Your task to perform on an android device: turn off javascript in the chrome app Image 0: 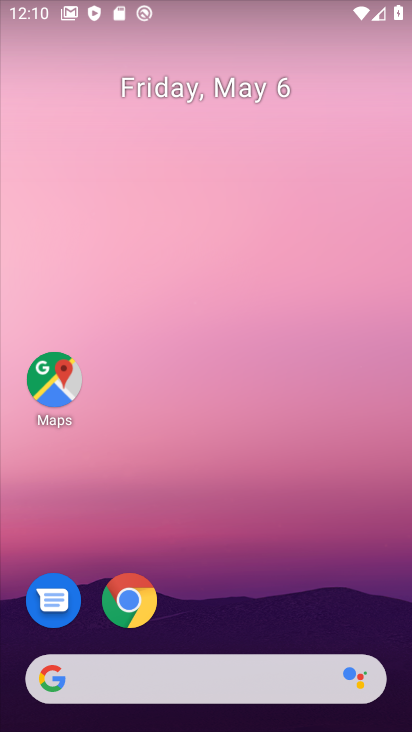
Step 0: click (137, 609)
Your task to perform on an android device: turn off javascript in the chrome app Image 1: 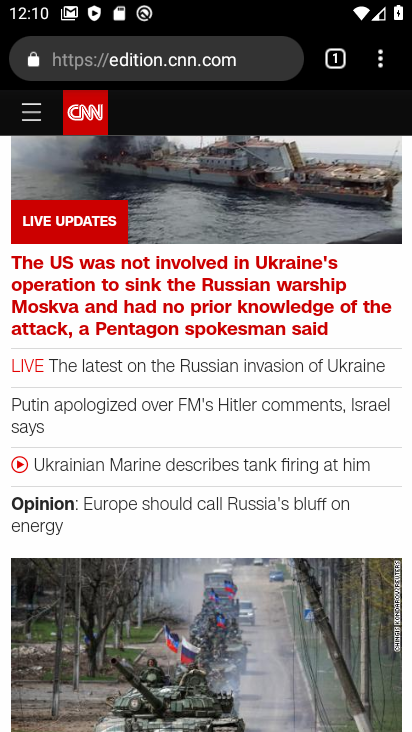
Step 1: drag from (387, 78) to (256, 644)
Your task to perform on an android device: turn off javascript in the chrome app Image 2: 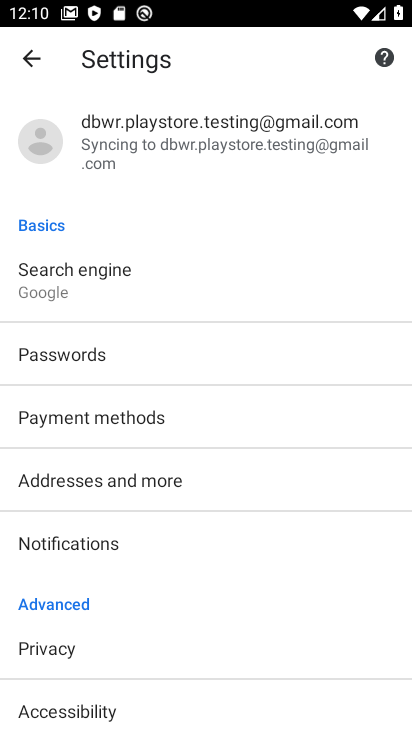
Step 2: drag from (93, 662) to (207, 336)
Your task to perform on an android device: turn off javascript in the chrome app Image 3: 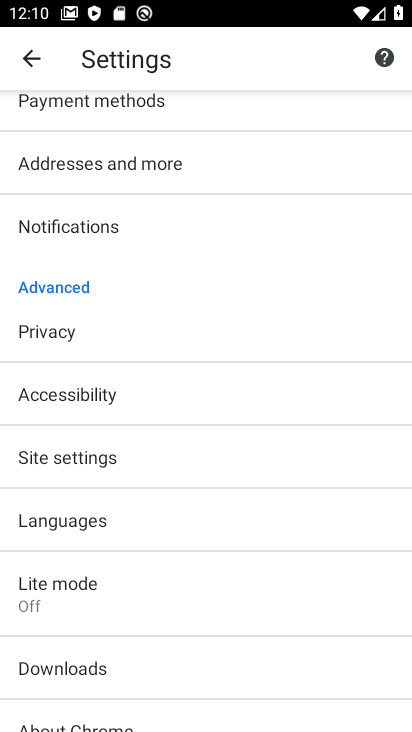
Step 3: drag from (138, 642) to (200, 469)
Your task to perform on an android device: turn off javascript in the chrome app Image 4: 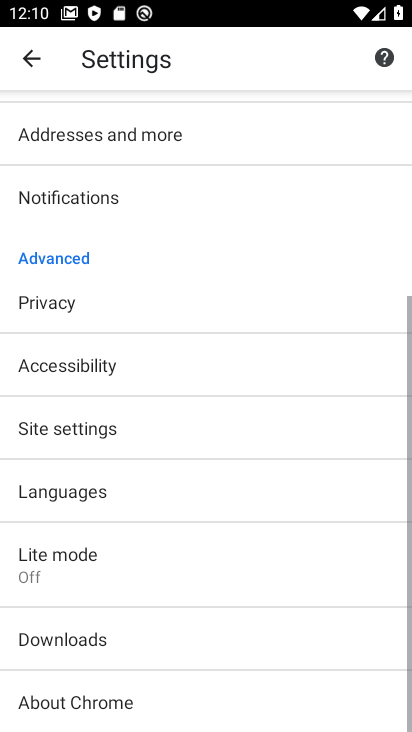
Step 4: click (170, 417)
Your task to perform on an android device: turn off javascript in the chrome app Image 5: 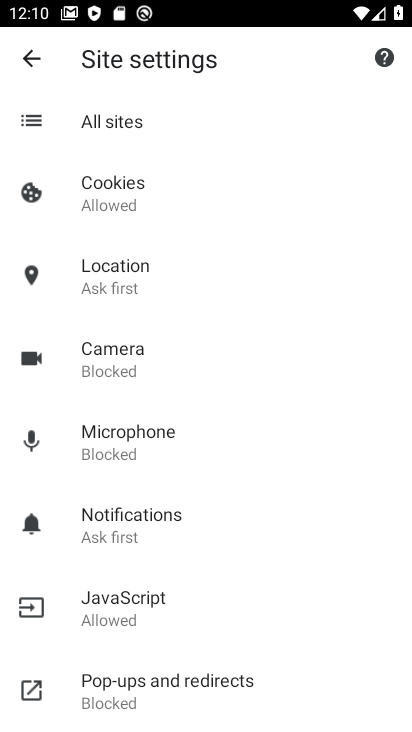
Step 5: click (168, 620)
Your task to perform on an android device: turn off javascript in the chrome app Image 6: 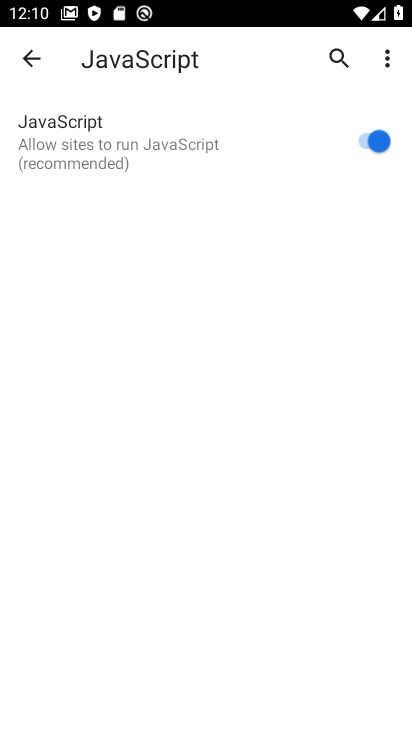
Step 6: click (366, 132)
Your task to perform on an android device: turn off javascript in the chrome app Image 7: 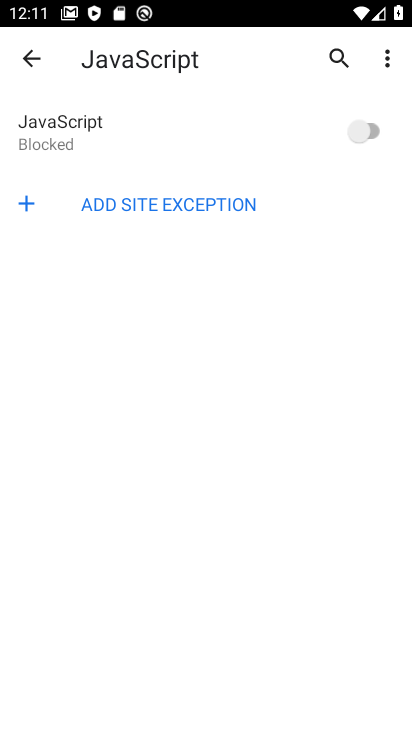
Step 7: task complete